Your task to perform on an android device: see creations saved in the google photos Image 0: 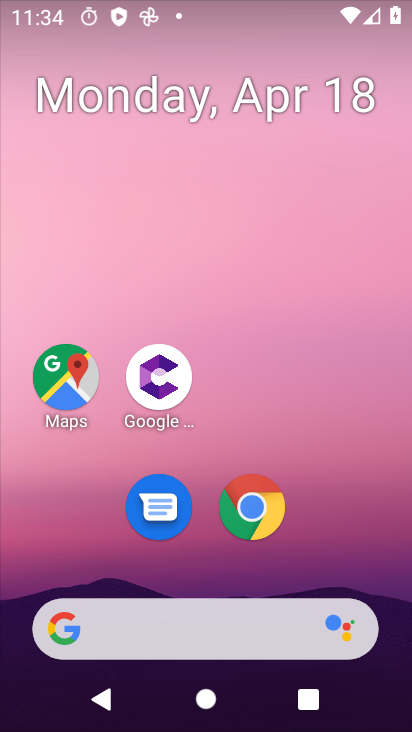
Step 0: drag from (251, 657) to (305, 229)
Your task to perform on an android device: see creations saved in the google photos Image 1: 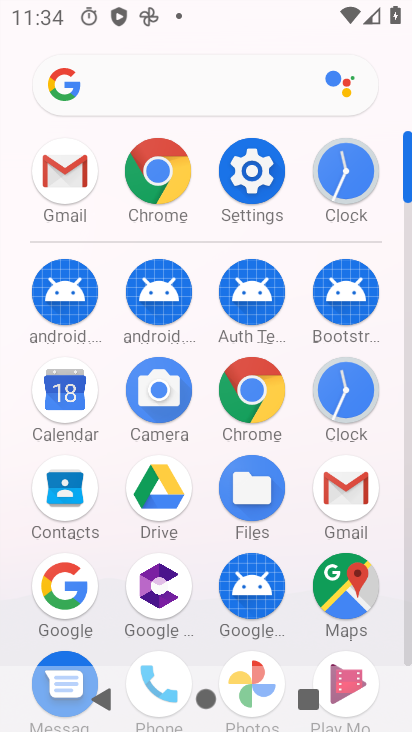
Step 1: click (254, 656)
Your task to perform on an android device: see creations saved in the google photos Image 2: 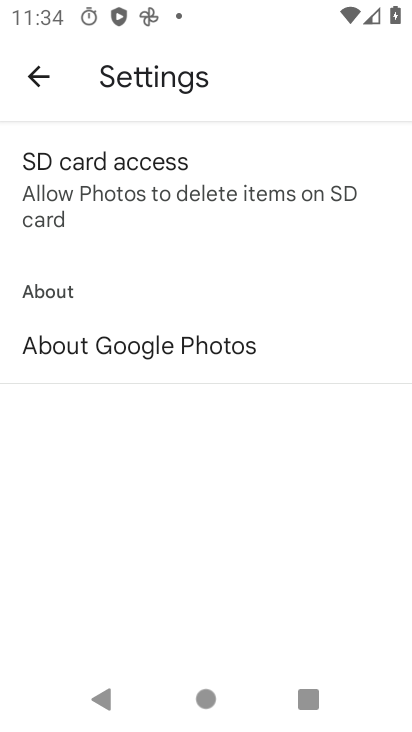
Step 2: click (43, 99)
Your task to perform on an android device: see creations saved in the google photos Image 3: 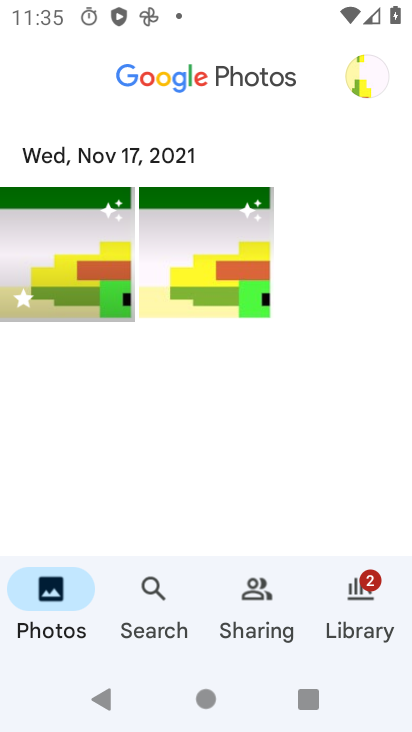
Step 3: click (171, 236)
Your task to perform on an android device: see creations saved in the google photos Image 4: 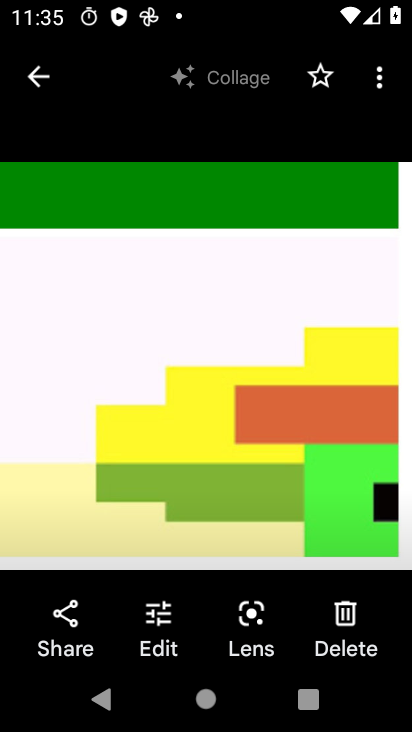
Step 4: click (375, 82)
Your task to perform on an android device: see creations saved in the google photos Image 5: 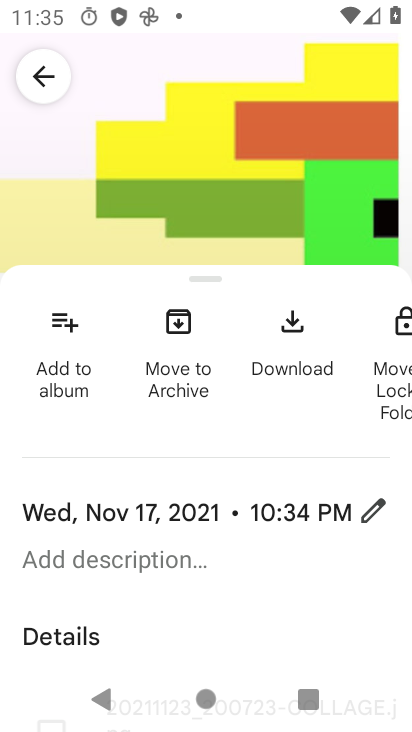
Step 5: click (80, 358)
Your task to perform on an android device: see creations saved in the google photos Image 6: 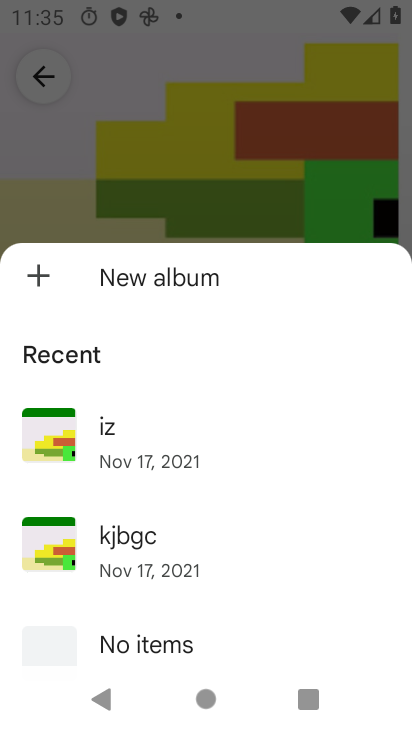
Step 6: task complete